Your task to perform on an android device: Open the phone app and click the voicemail tab. Image 0: 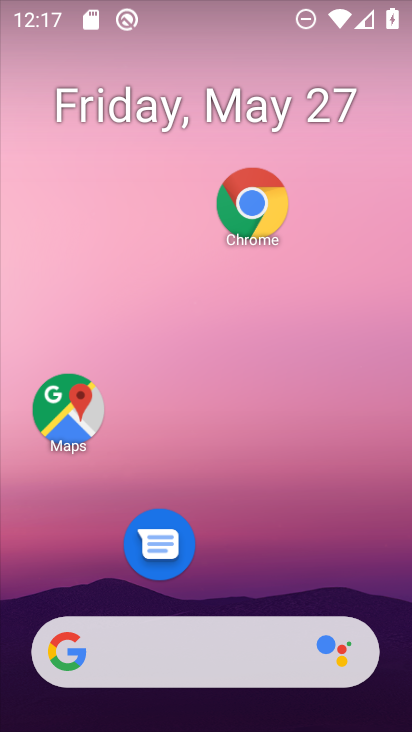
Step 0: drag from (213, 551) to (212, 224)
Your task to perform on an android device: Open the phone app and click the voicemail tab. Image 1: 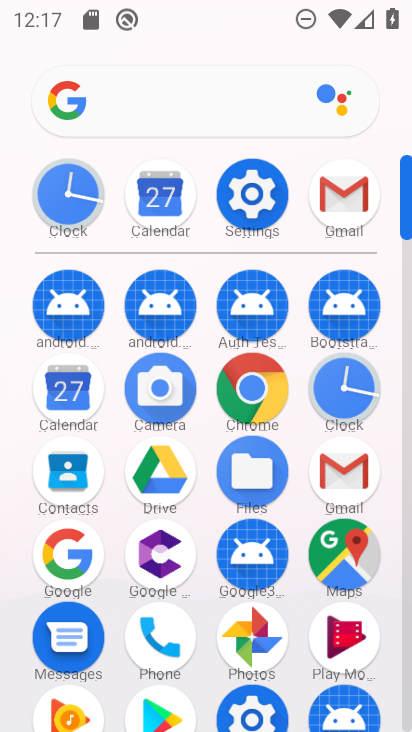
Step 1: click (223, 229)
Your task to perform on an android device: Open the phone app and click the voicemail tab. Image 2: 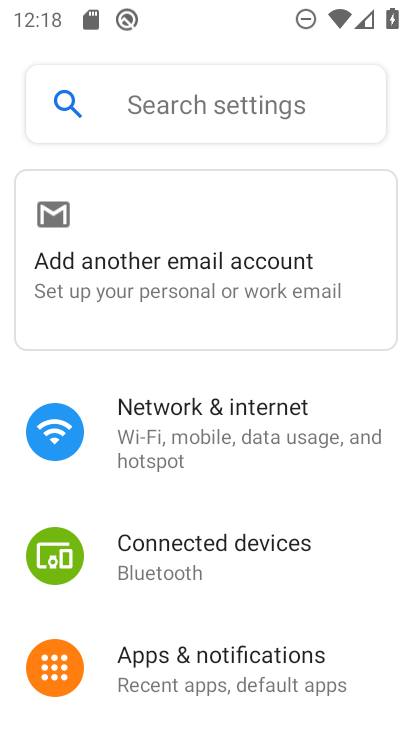
Step 2: drag from (202, 580) to (234, 222)
Your task to perform on an android device: Open the phone app and click the voicemail tab. Image 3: 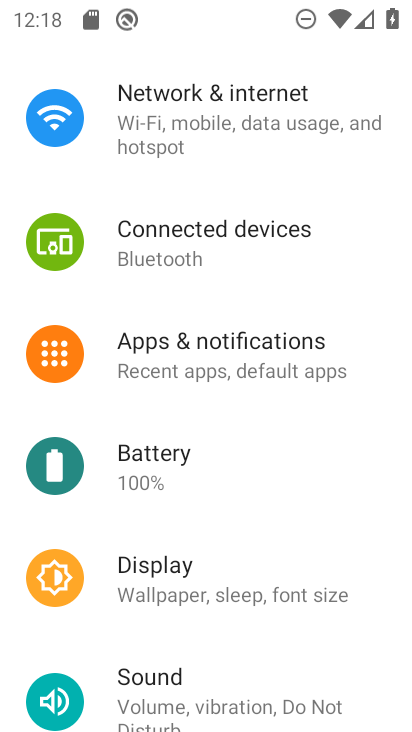
Step 3: drag from (201, 624) to (228, 257)
Your task to perform on an android device: Open the phone app and click the voicemail tab. Image 4: 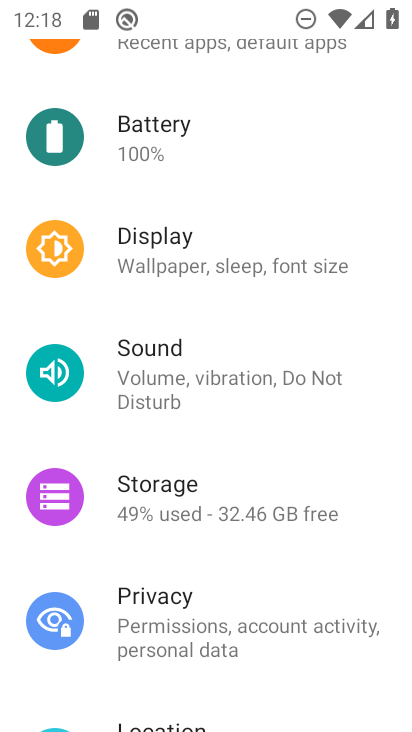
Step 4: press home button
Your task to perform on an android device: Open the phone app and click the voicemail tab. Image 5: 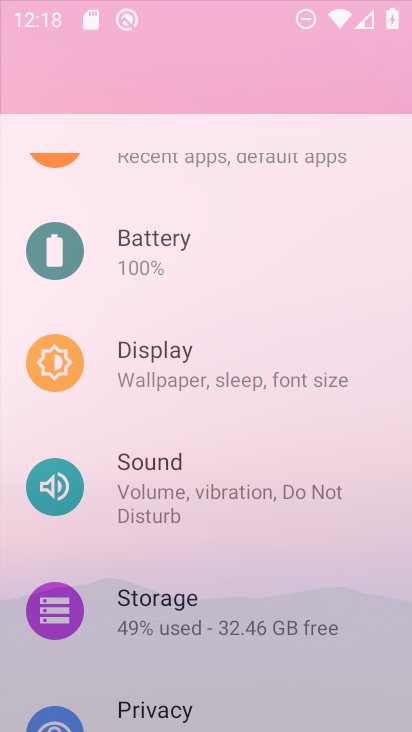
Step 5: drag from (178, 653) to (237, 218)
Your task to perform on an android device: Open the phone app and click the voicemail tab. Image 6: 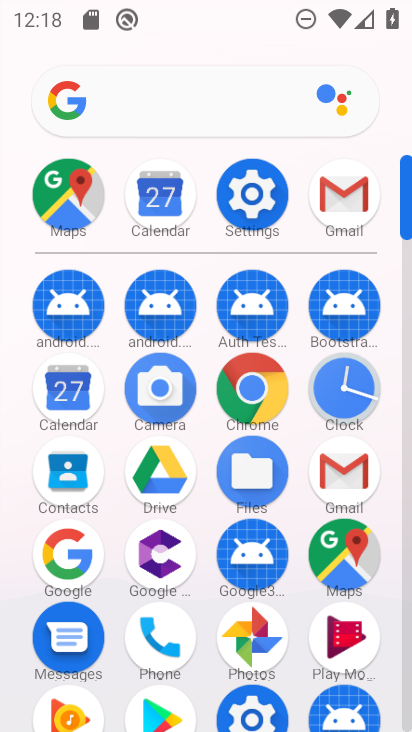
Step 6: drag from (197, 581) to (207, 233)
Your task to perform on an android device: Open the phone app and click the voicemail tab. Image 7: 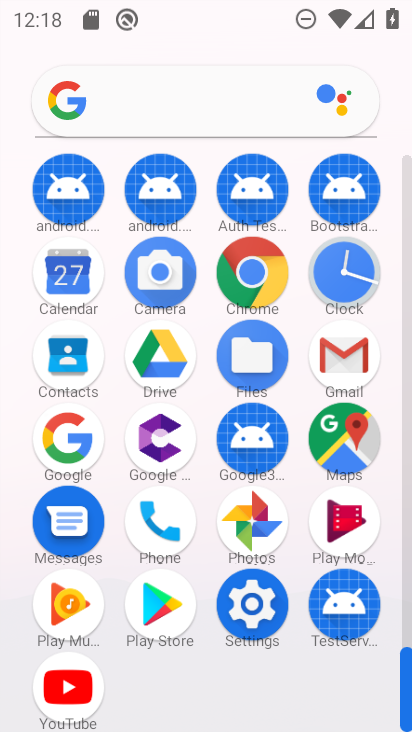
Step 7: click (164, 543)
Your task to perform on an android device: Open the phone app and click the voicemail tab. Image 8: 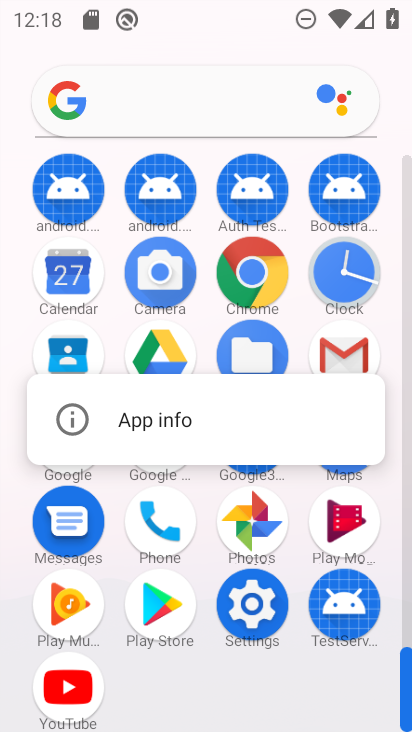
Step 8: click (180, 419)
Your task to perform on an android device: Open the phone app and click the voicemail tab. Image 9: 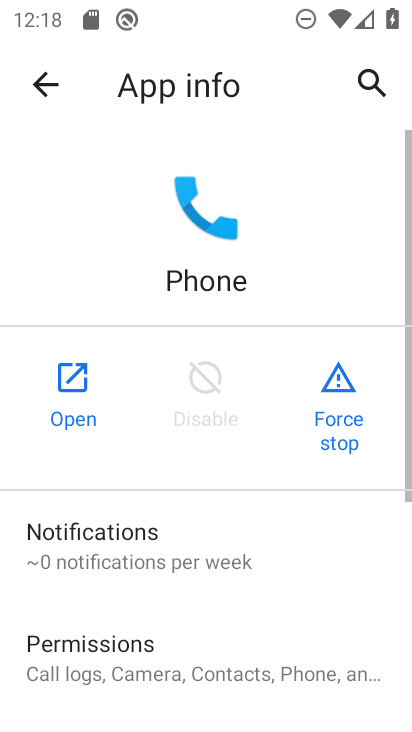
Step 9: click (72, 400)
Your task to perform on an android device: Open the phone app and click the voicemail tab. Image 10: 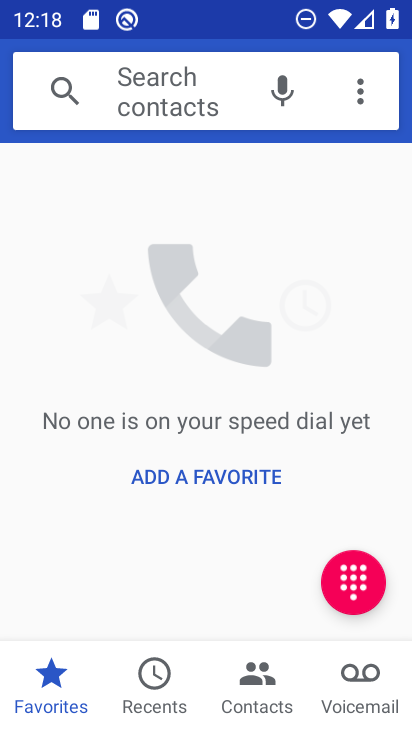
Step 10: click (348, 683)
Your task to perform on an android device: Open the phone app and click the voicemail tab. Image 11: 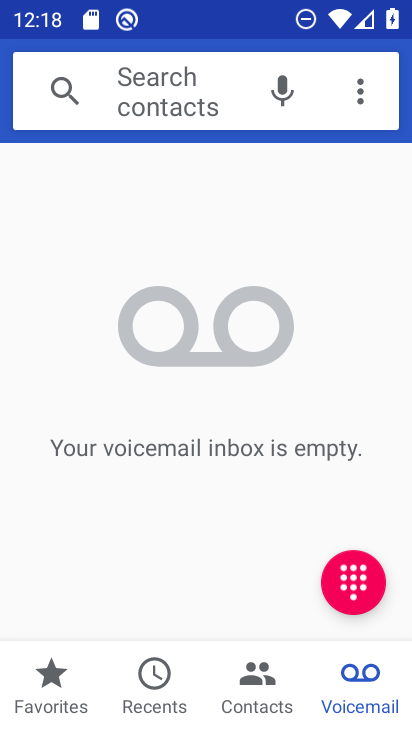
Step 11: drag from (209, 560) to (202, 321)
Your task to perform on an android device: Open the phone app and click the voicemail tab. Image 12: 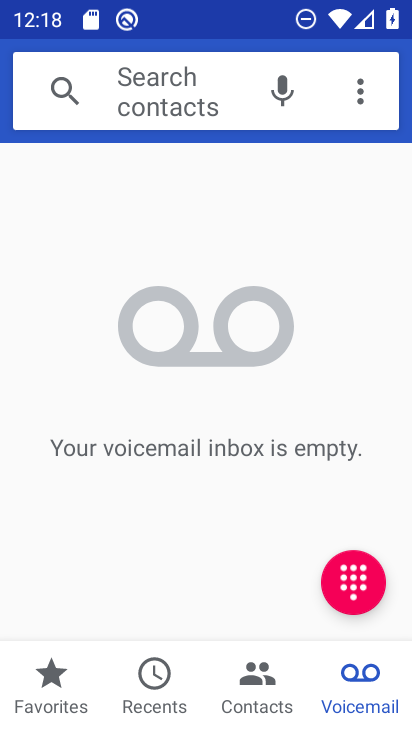
Step 12: drag from (242, 571) to (266, 195)
Your task to perform on an android device: Open the phone app and click the voicemail tab. Image 13: 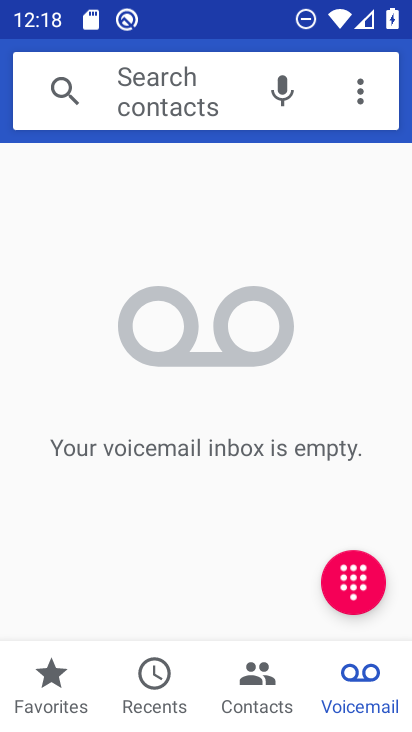
Step 13: drag from (260, 549) to (276, 320)
Your task to perform on an android device: Open the phone app and click the voicemail tab. Image 14: 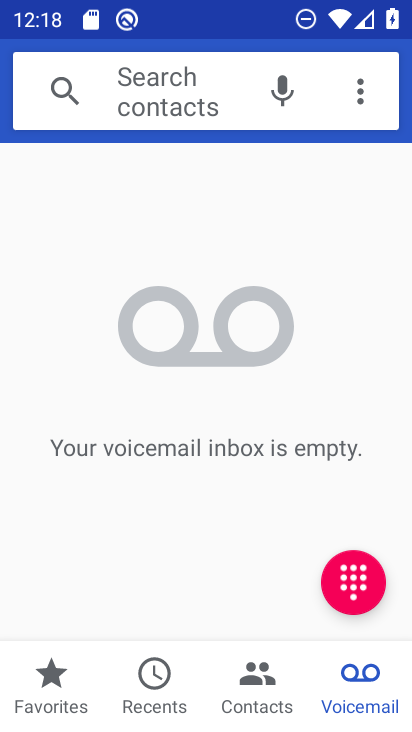
Step 14: click (336, 679)
Your task to perform on an android device: Open the phone app and click the voicemail tab. Image 15: 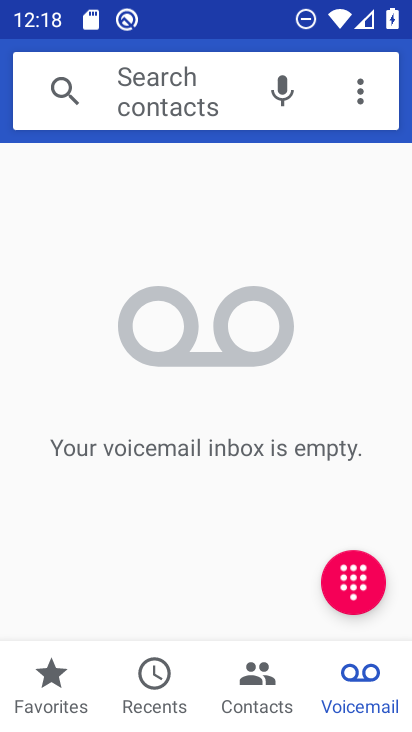
Step 15: task complete